Your task to perform on an android device: refresh tabs in the chrome app Image 0: 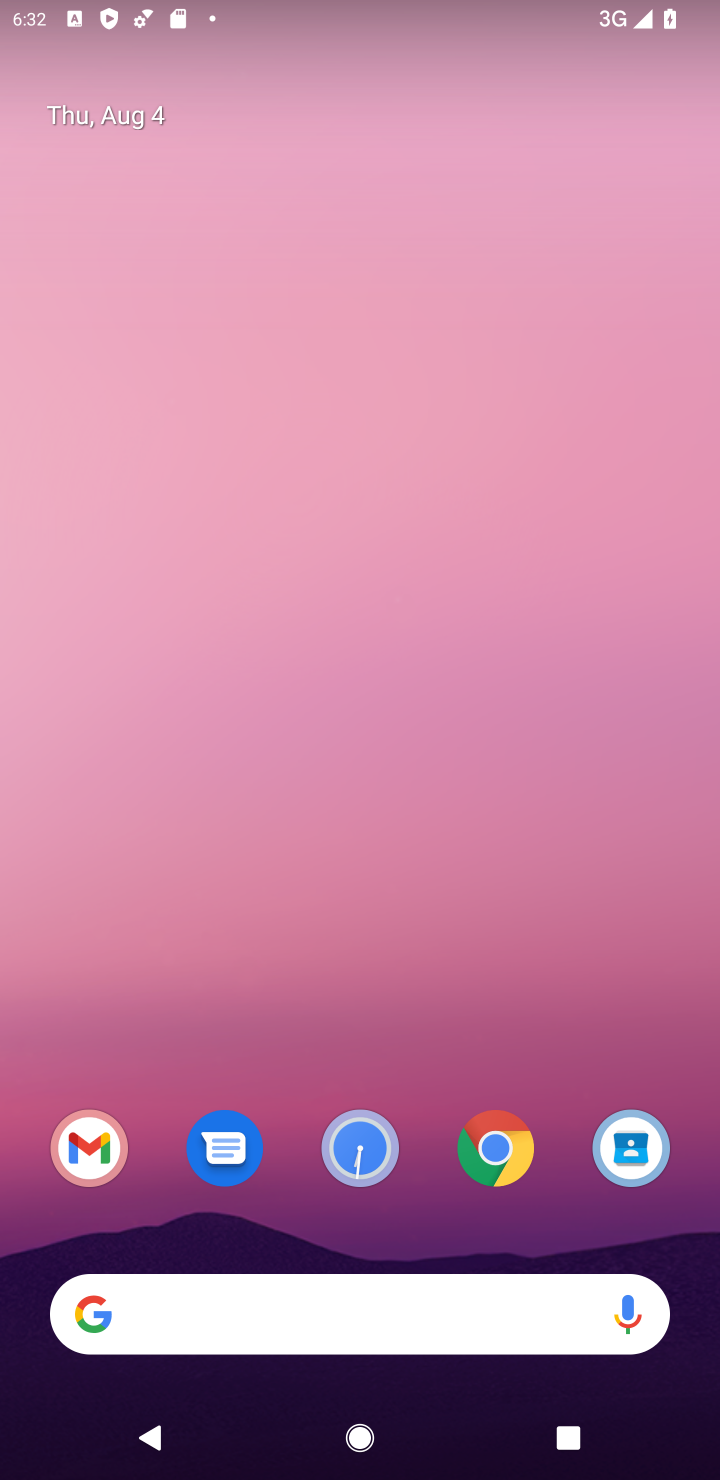
Step 0: click (492, 1145)
Your task to perform on an android device: refresh tabs in the chrome app Image 1: 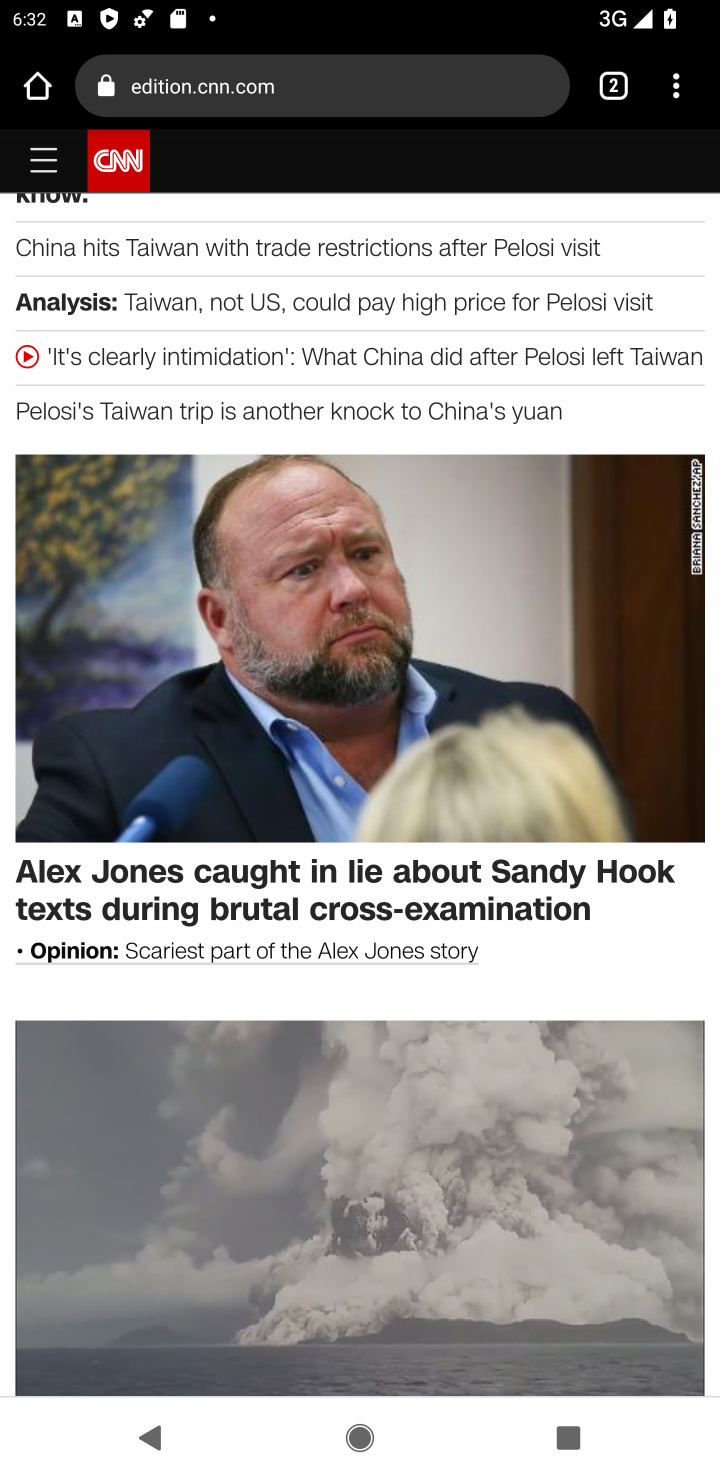
Step 1: click (673, 99)
Your task to perform on an android device: refresh tabs in the chrome app Image 2: 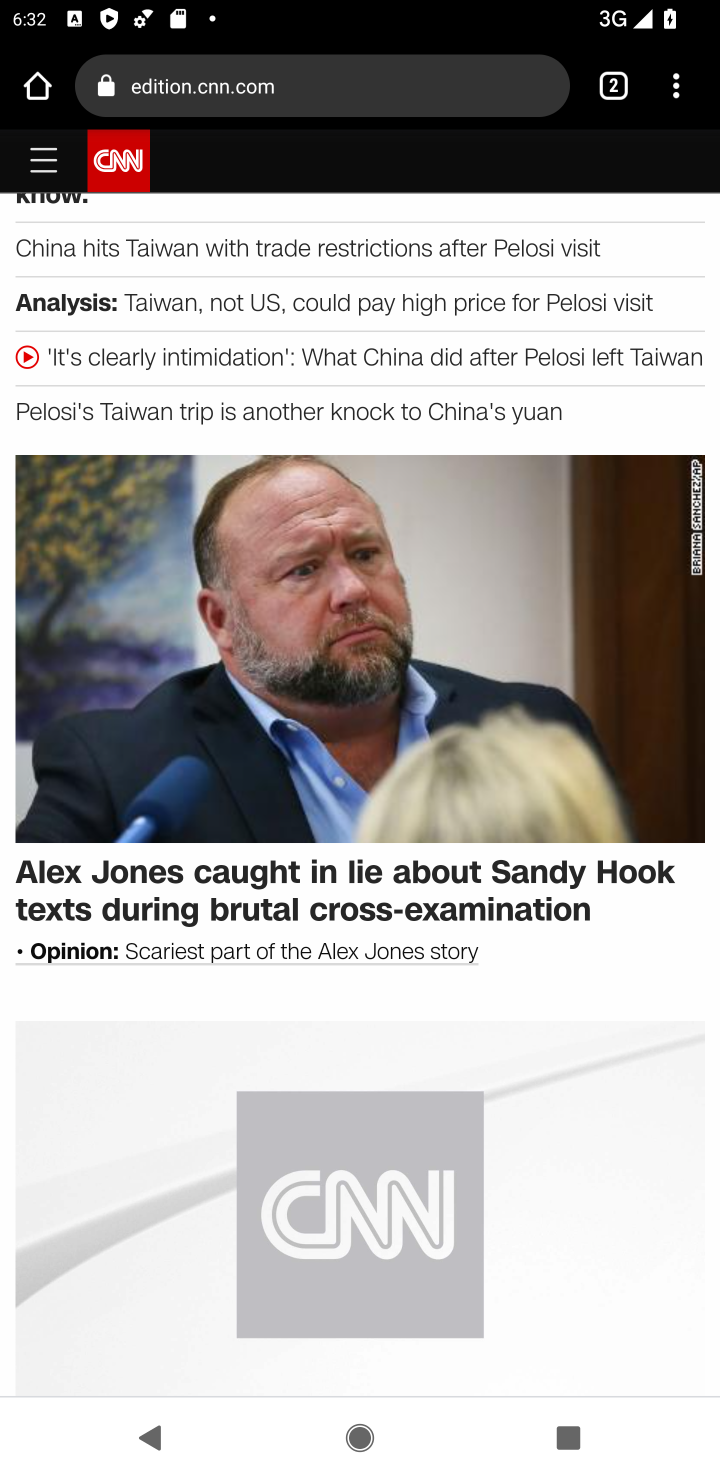
Step 2: task complete